Your task to perform on an android device: all mails in gmail Image 0: 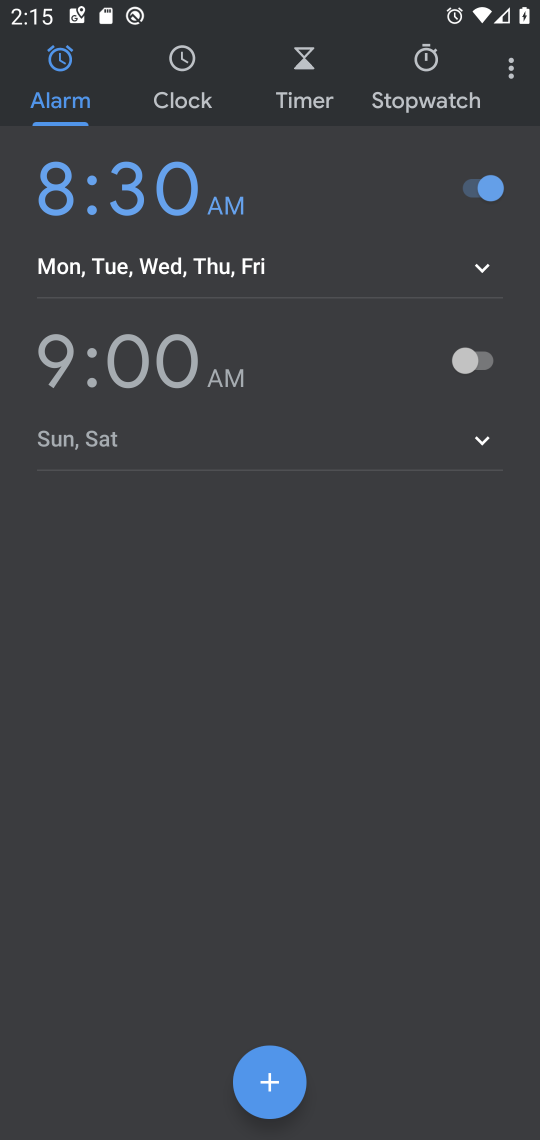
Step 0: press home button
Your task to perform on an android device: all mails in gmail Image 1: 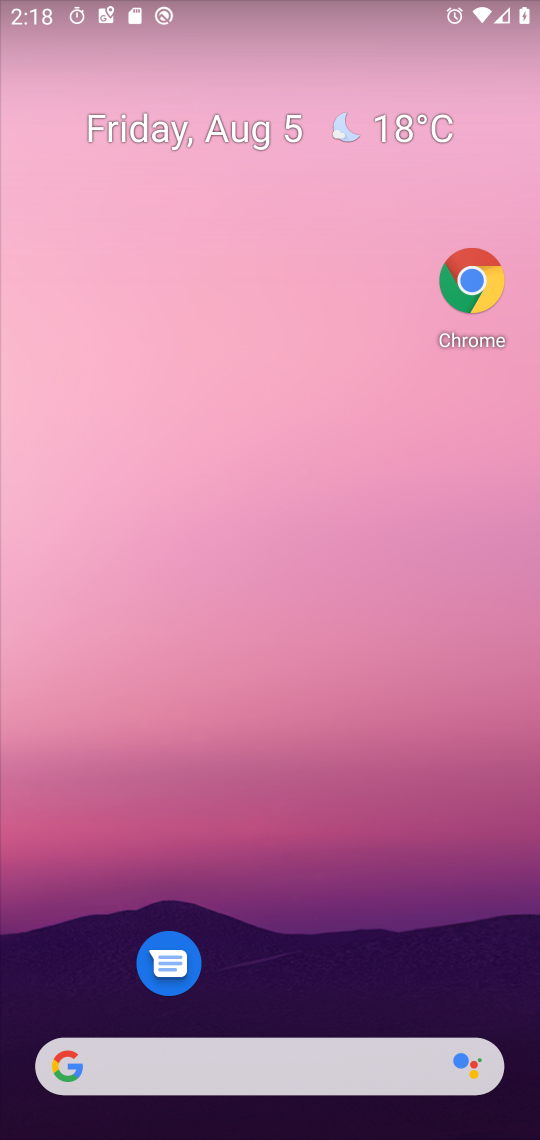
Step 1: drag from (408, 995) to (2, 394)
Your task to perform on an android device: all mails in gmail Image 2: 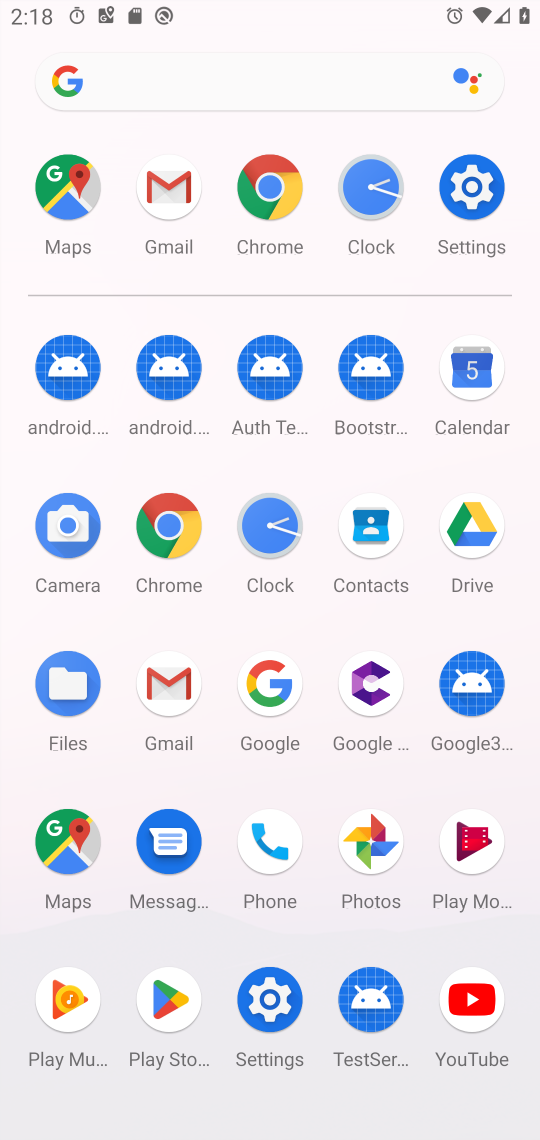
Step 2: click (164, 188)
Your task to perform on an android device: all mails in gmail Image 3: 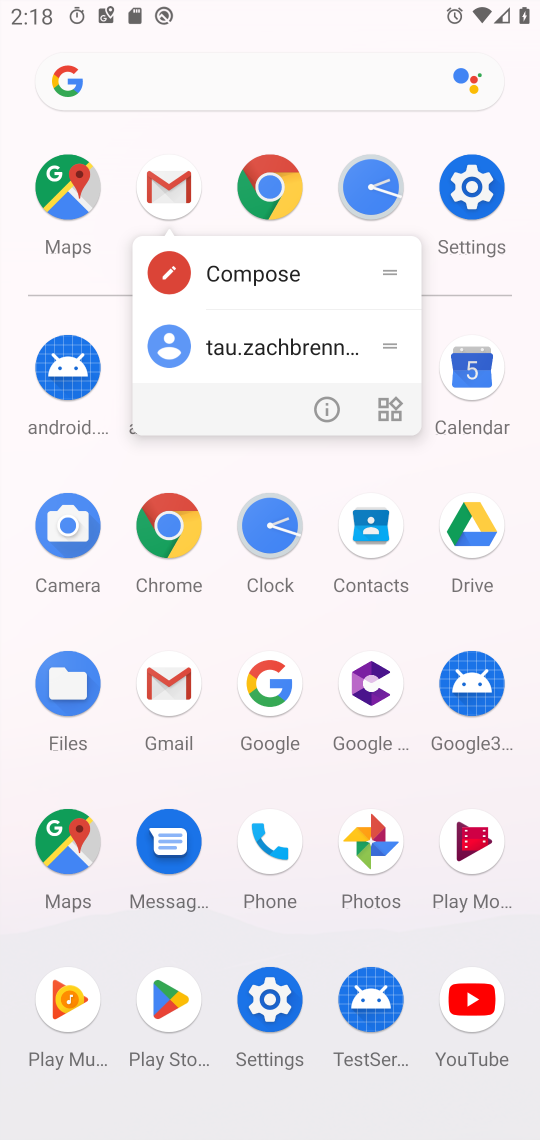
Step 3: click (164, 188)
Your task to perform on an android device: all mails in gmail Image 4: 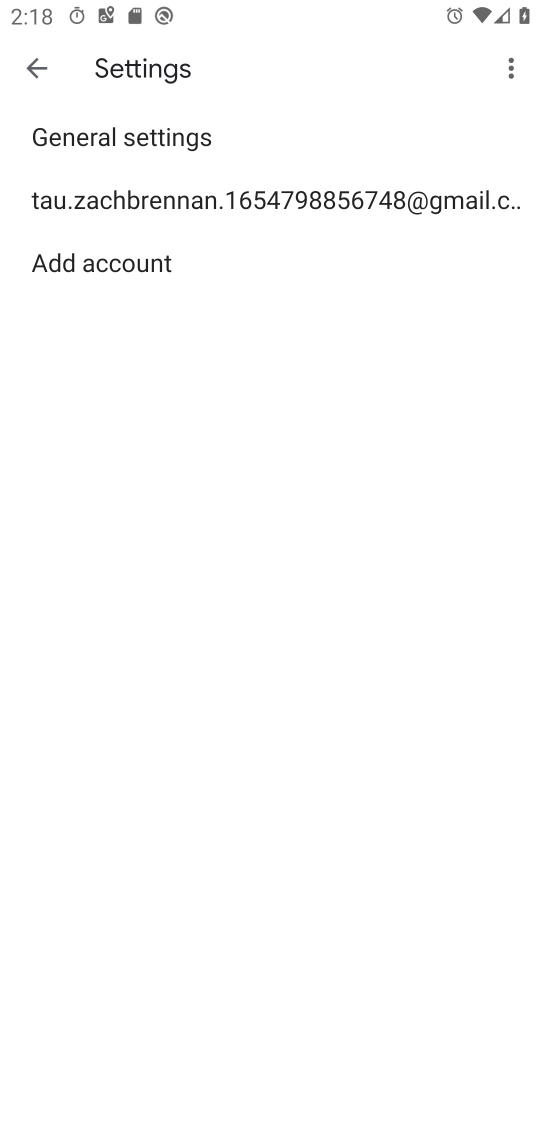
Step 4: click (34, 79)
Your task to perform on an android device: all mails in gmail Image 5: 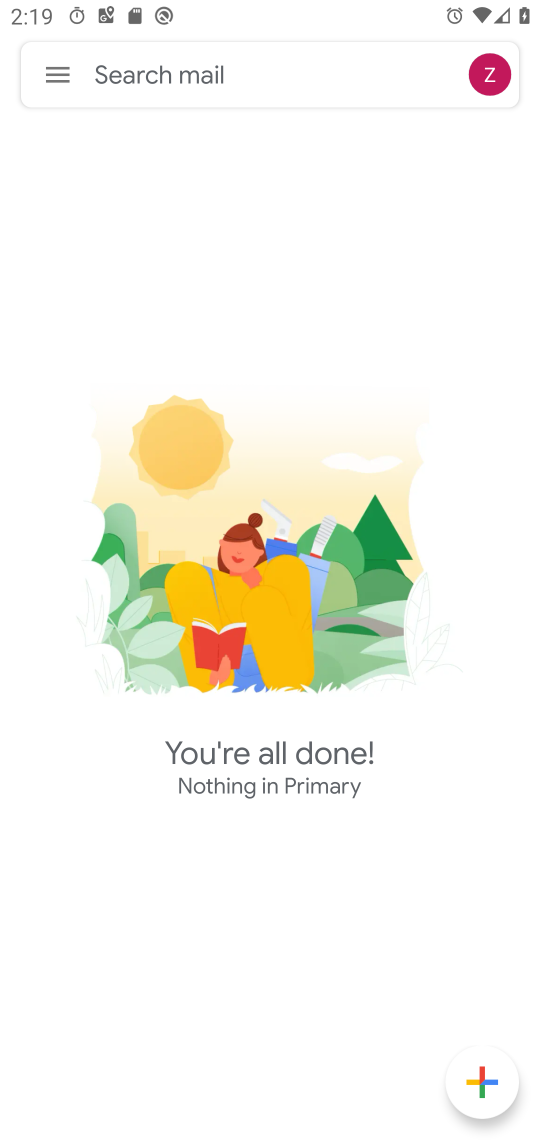
Step 5: click (46, 70)
Your task to perform on an android device: all mails in gmail Image 6: 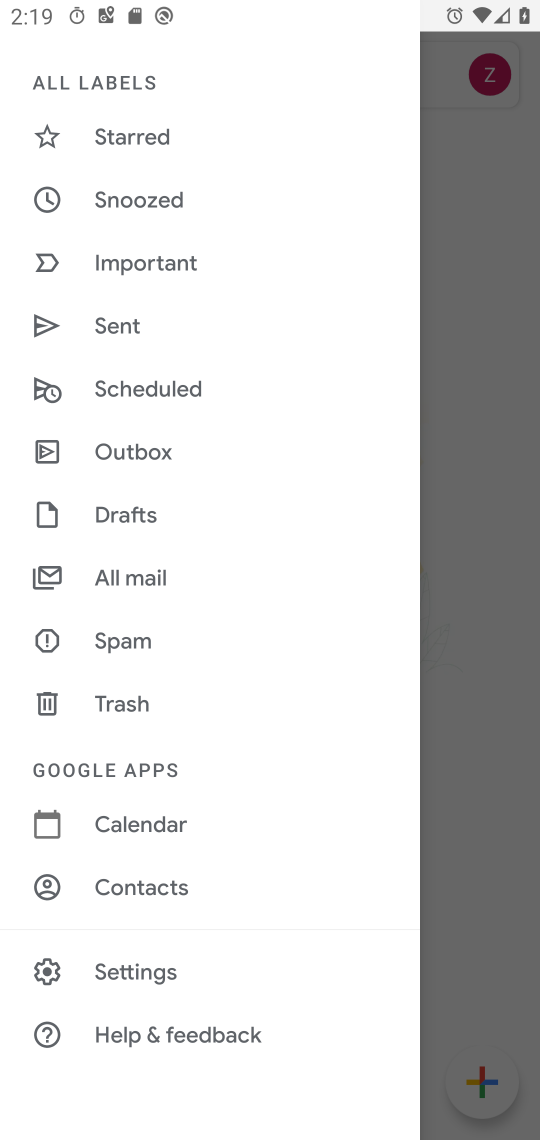
Step 6: click (99, 597)
Your task to perform on an android device: all mails in gmail Image 7: 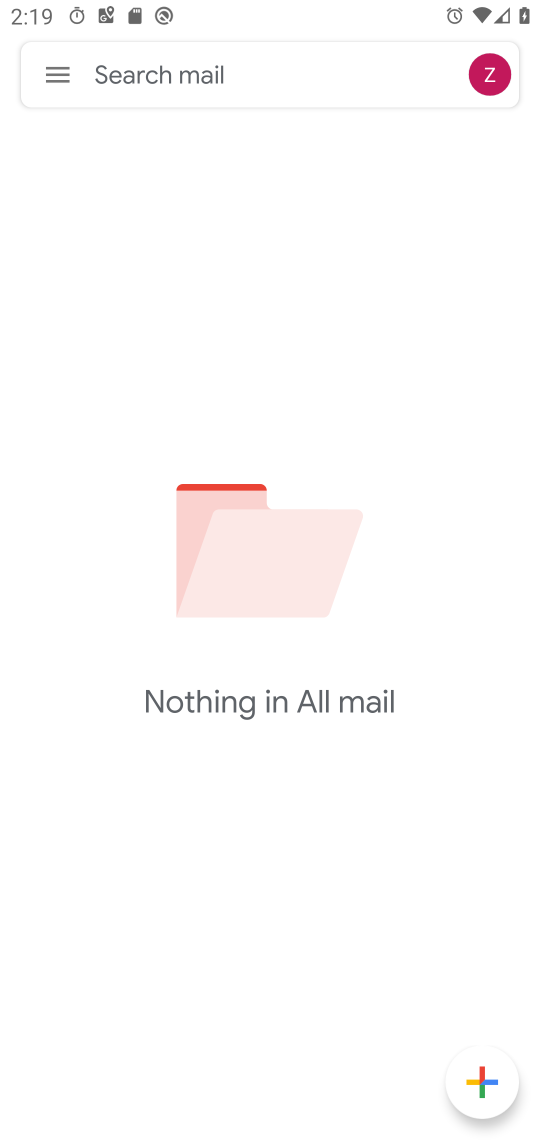
Step 7: task complete